Your task to perform on an android device: Open wifi settings Image 0: 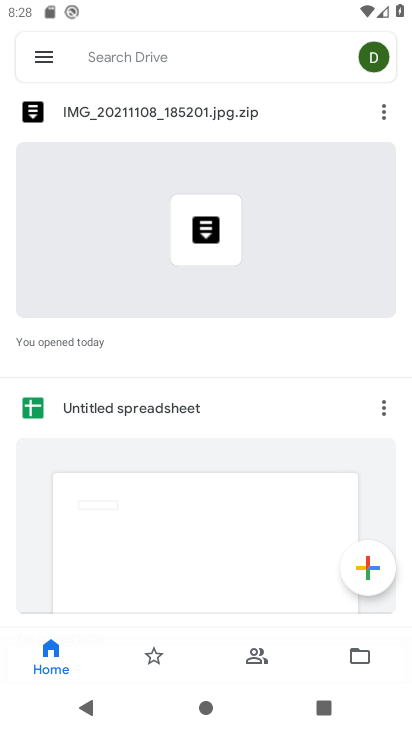
Step 0: press home button
Your task to perform on an android device: Open wifi settings Image 1: 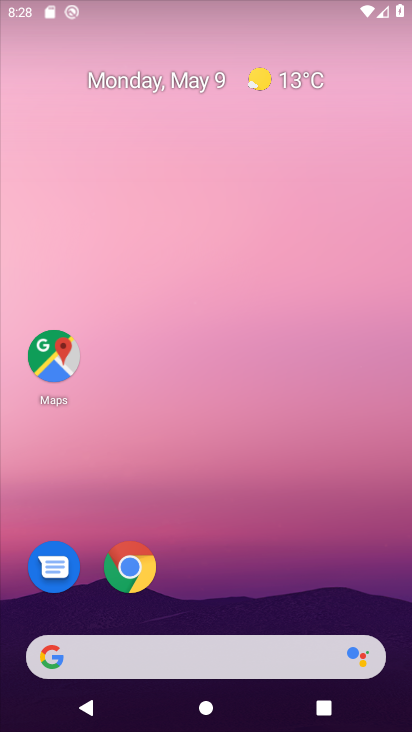
Step 1: drag from (200, 521) to (206, 46)
Your task to perform on an android device: Open wifi settings Image 2: 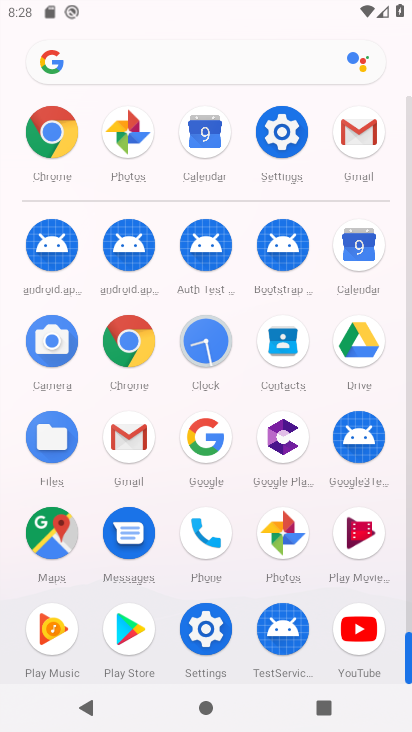
Step 2: click (273, 127)
Your task to perform on an android device: Open wifi settings Image 3: 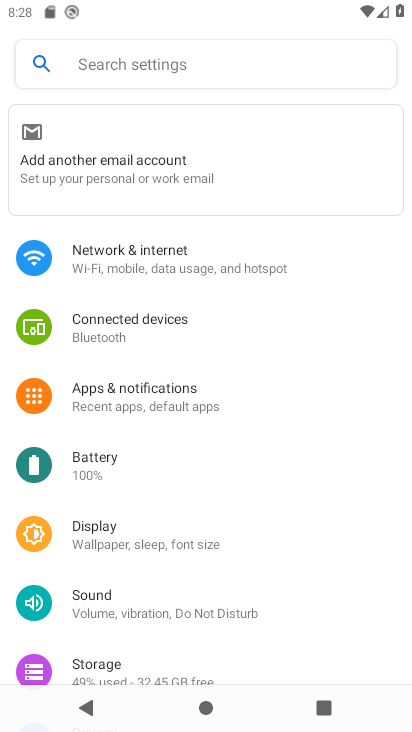
Step 3: click (220, 246)
Your task to perform on an android device: Open wifi settings Image 4: 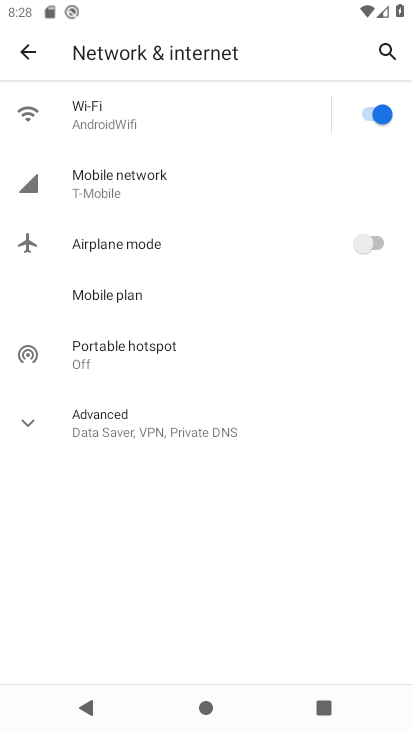
Step 4: click (212, 114)
Your task to perform on an android device: Open wifi settings Image 5: 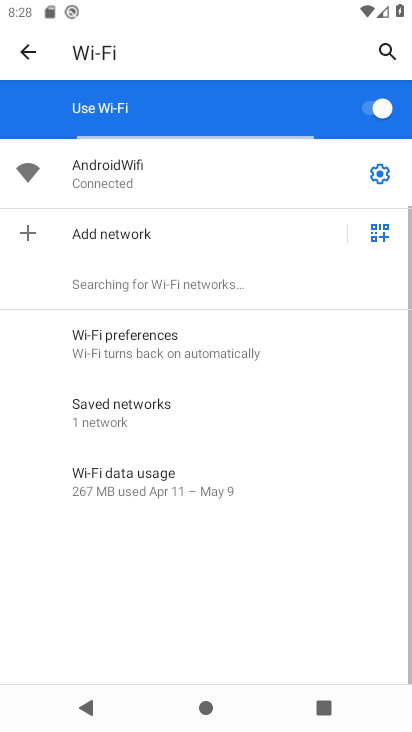
Step 5: task complete